Your task to perform on an android device: Turn on the flashlight Image 0: 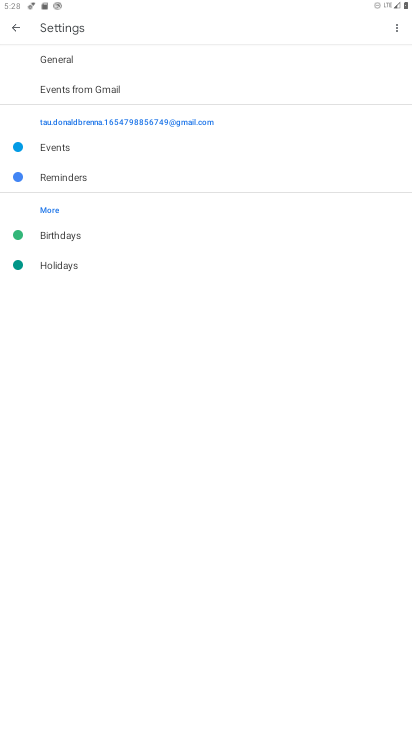
Step 0: press home button
Your task to perform on an android device: Turn on the flashlight Image 1: 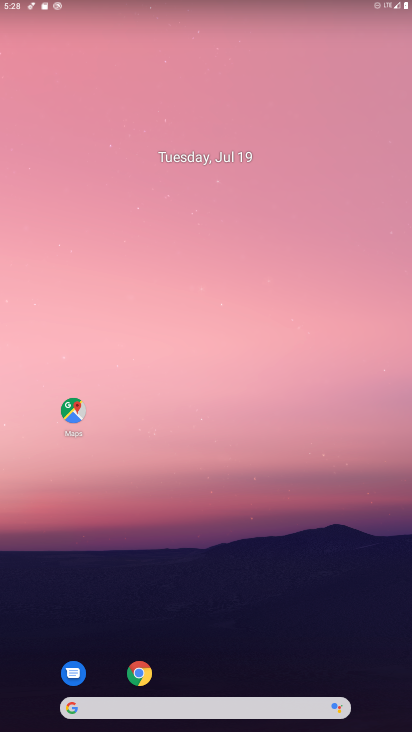
Step 1: drag from (212, 668) to (199, 50)
Your task to perform on an android device: Turn on the flashlight Image 2: 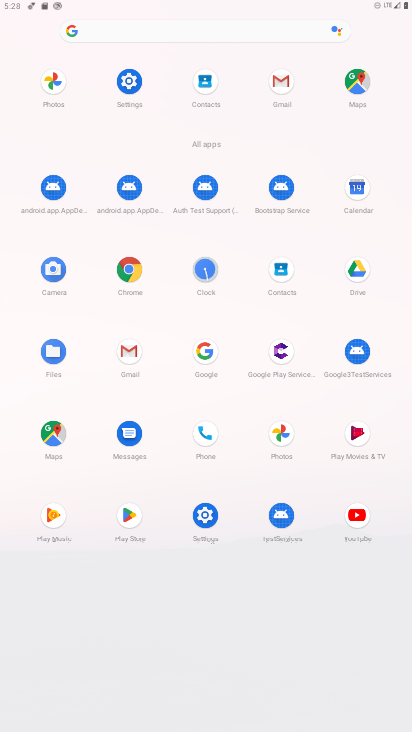
Step 2: click (125, 75)
Your task to perform on an android device: Turn on the flashlight Image 3: 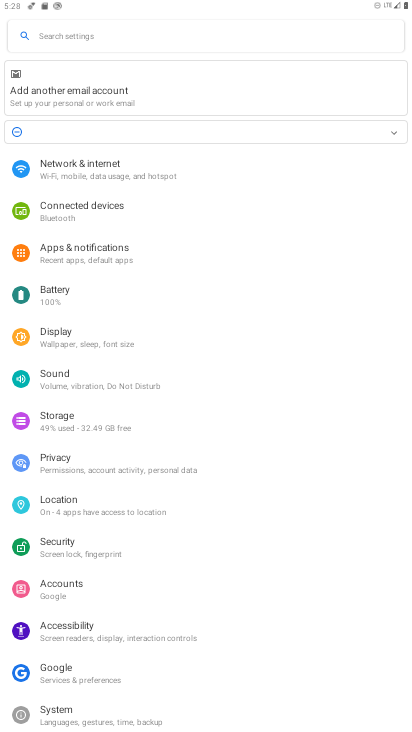
Step 3: click (96, 29)
Your task to perform on an android device: Turn on the flashlight Image 4: 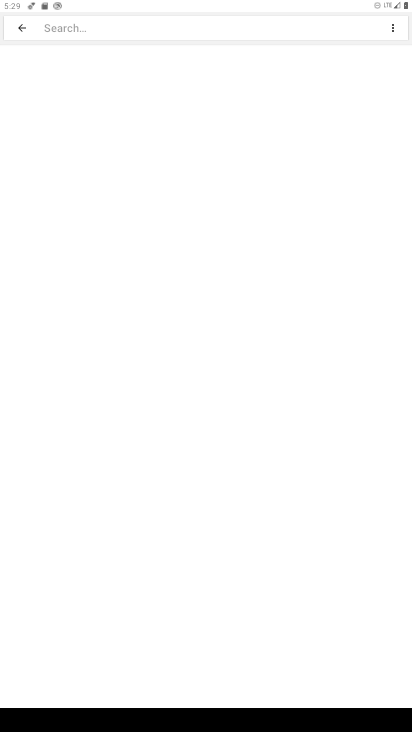
Step 4: type "flashlight"
Your task to perform on an android device: Turn on the flashlight Image 5: 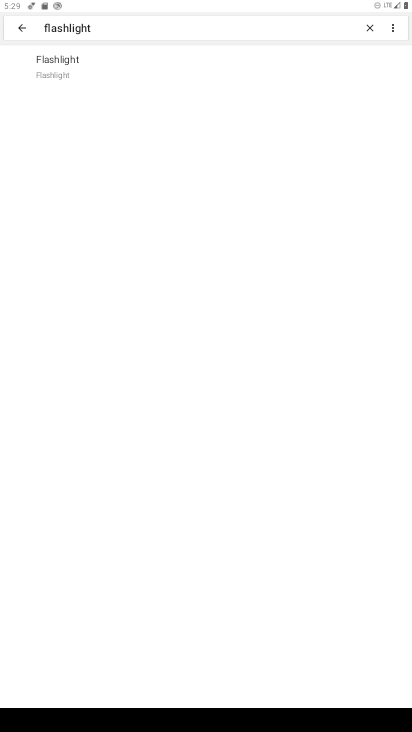
Step 5: click (69, 64)
Your task to perform on an android device: Turn on the flashlight Image 6: 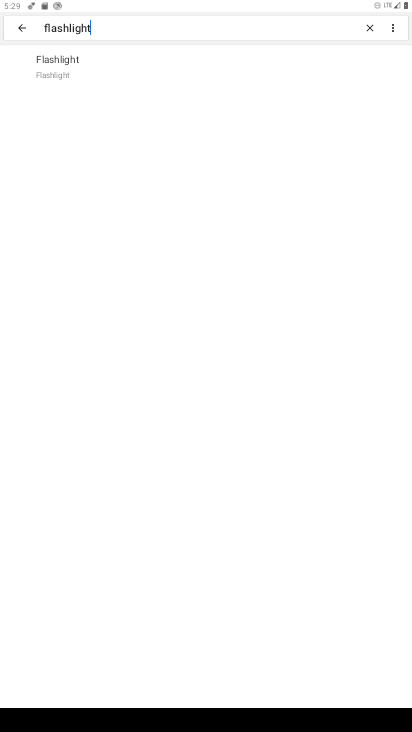
Step 6: task complete